Your task to perform on an android device: change the clock display to digital Image 0: 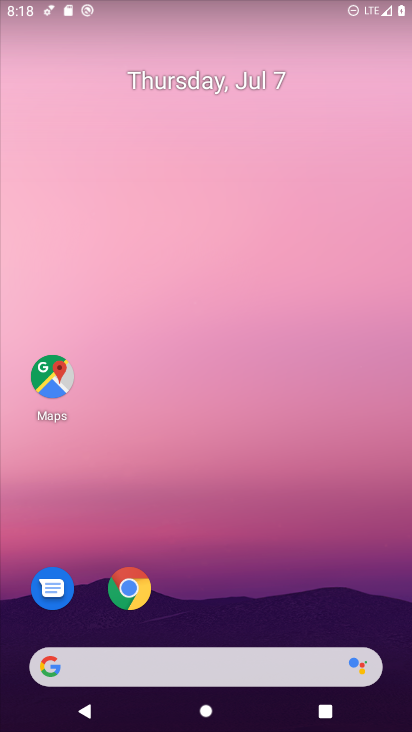
Step 0: drag from (228, 576) to (222, 229)
Your task to perform on an android device: change the clock display to digital Image 1: 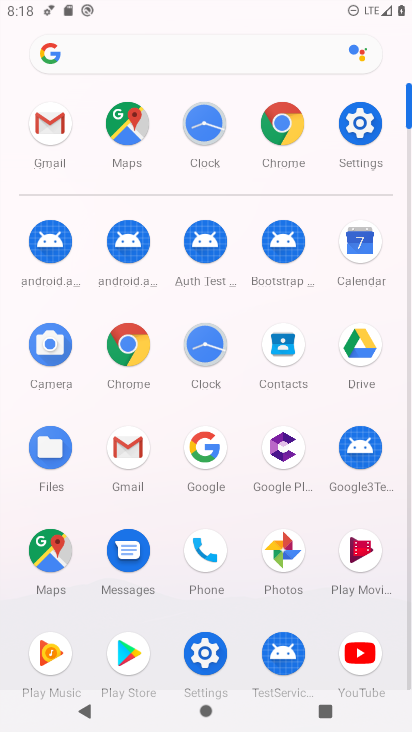
Step 1: click (213, 123)
Your task to perform on an android device: change the clock display to digital Image 2: 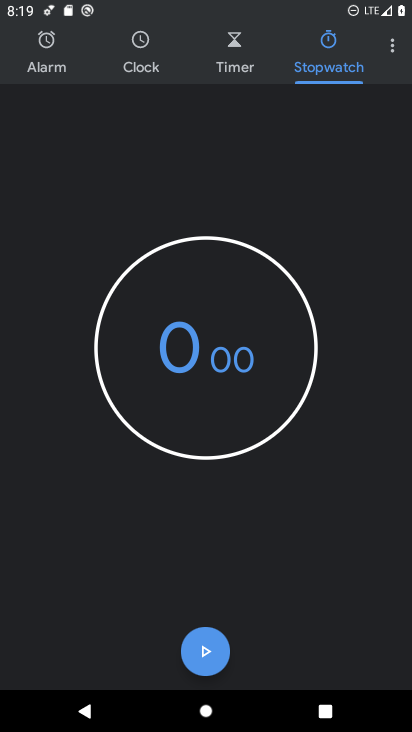
Step 2: click (390, 56)
Your task to perform on an android device: change the clock display to digital Image 3: 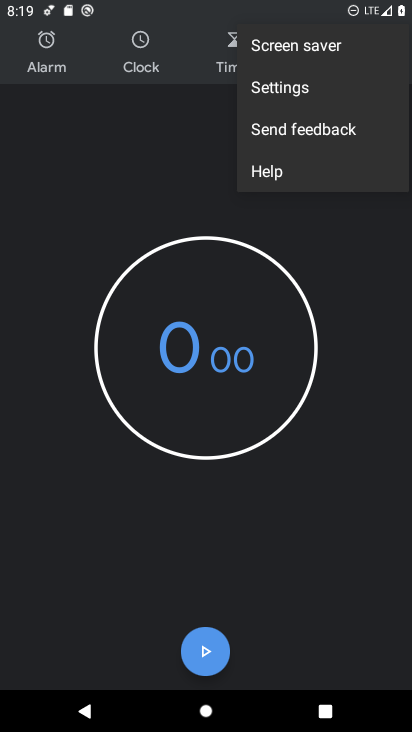
Step 3: click (270, 102)
Your task to perform on an android device: change the clock display to digital Image 4: 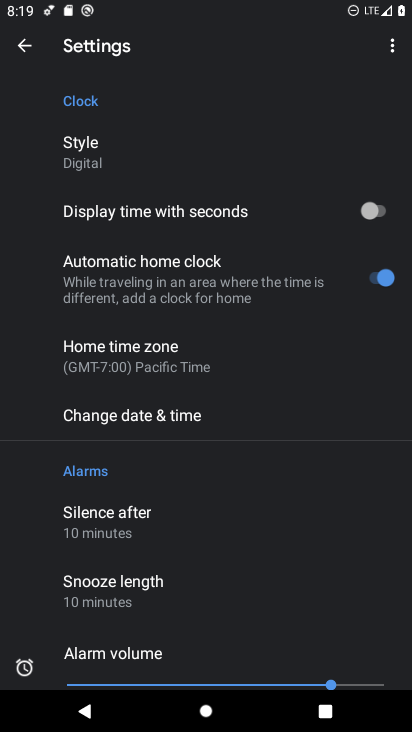
Step 4: task complete